Your task to perform on an android device: Go to Wikipedia Image 0: 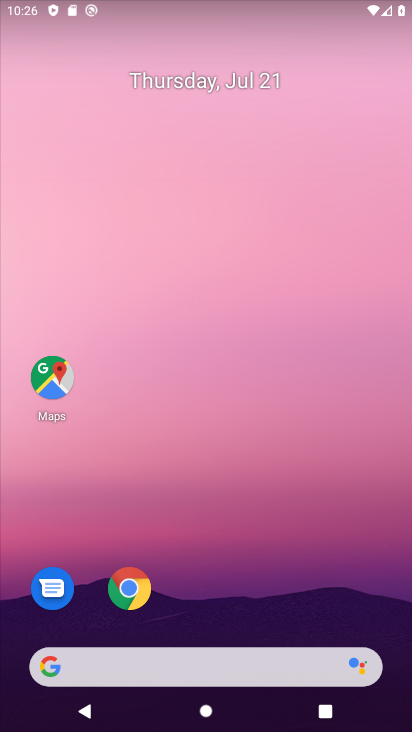
Step 0: drag from (299, 356) to (276, 17)
Your task to perform on an android device: Go to Wikipedia Image 1: 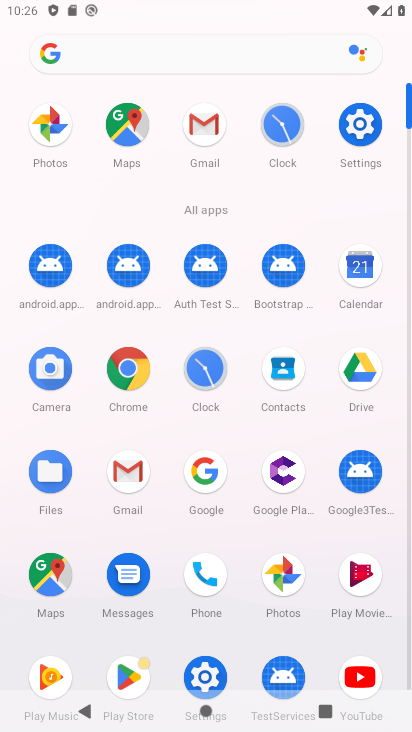
Step 1: click (140, 375)
Your task to perform on an android device: Go to Wikipedia Image 2: 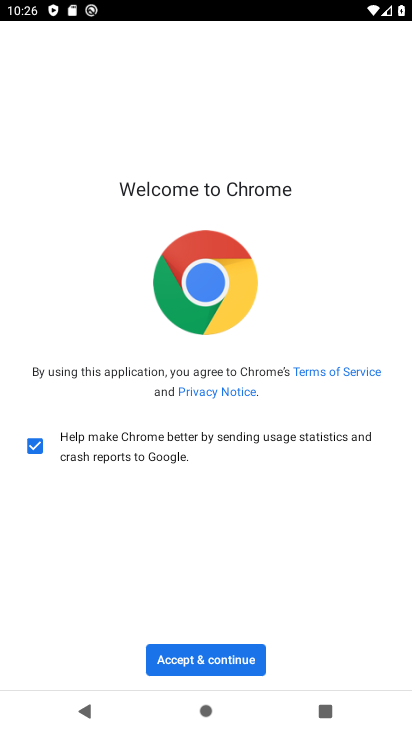
Step 2: click (208, 654)
Your task to perform on an android device: Go to Wikipedia Image 3: 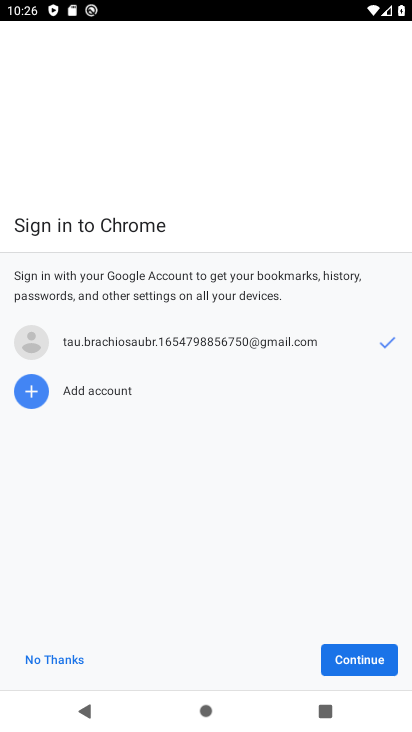
Step 3: click (70, 657)
Your task to perform on an android device: Go to Wikipedia Image 4: 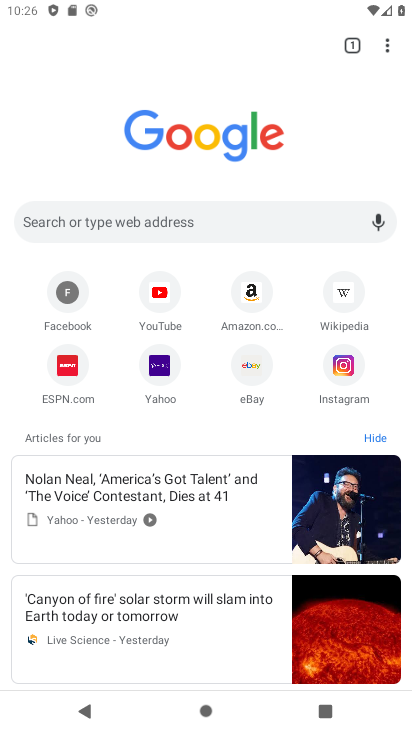
Step 4: click (341, 275)
Your task to perform on an android device: Go to Wikipedia Image 5: 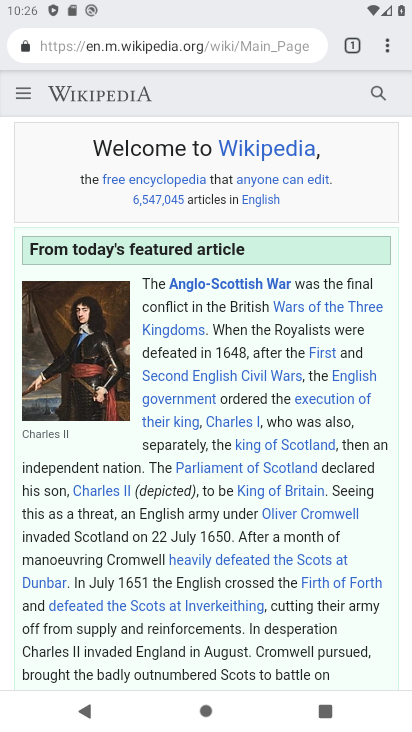
Step 5: task complete